Your task to perform on an android device: Open the phone app and click the voicemail tab. Image 0: 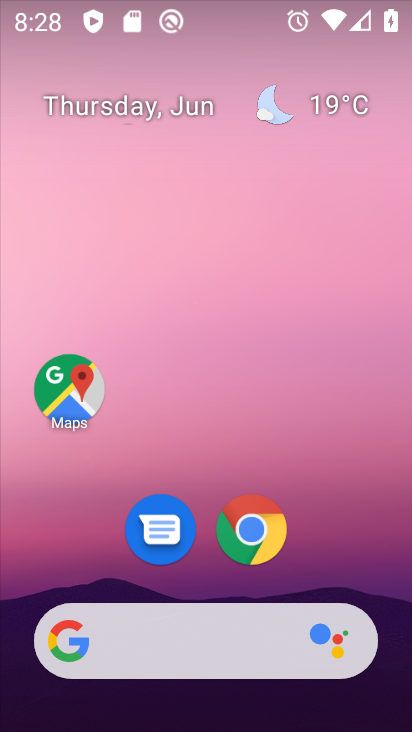
Step 0: drag from (397, 706) to (386, 117)
Your task to perform on an android device: Open the phone app and click the voicemail tab. Image 1: 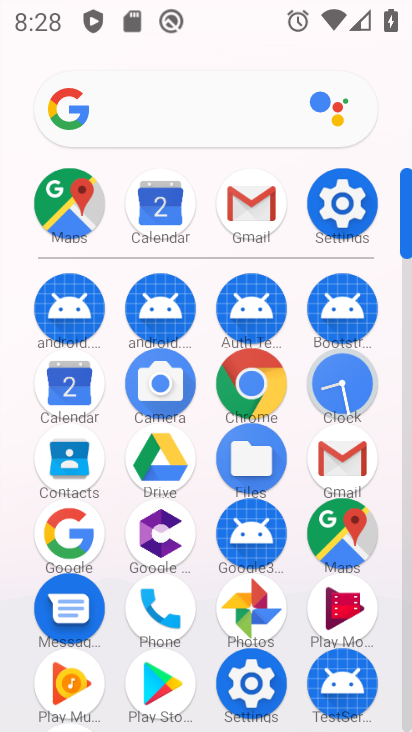
Step 1: click (170, 616)
Your task to perform on an android device: Open the phone app and click the voicemail tab. Image 2: 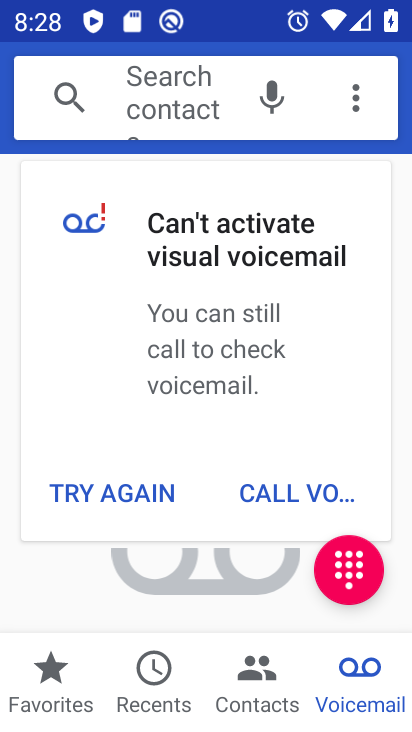
Step 2: click (369, 692)
Your task to perform on an android device: Open the phone app and click the voicemail tab. Image 3: 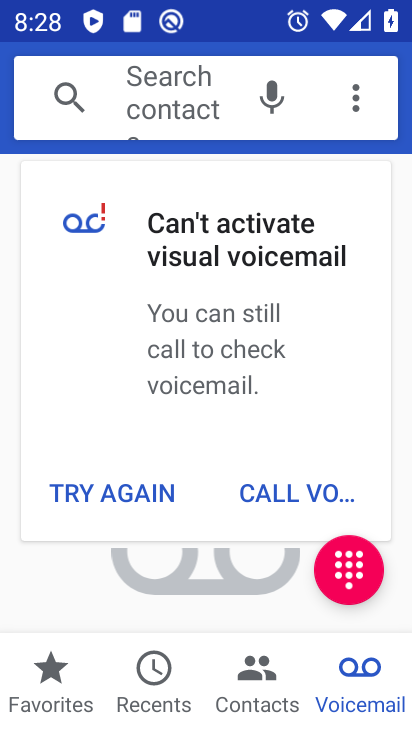
Step 3: click (366, 680)
Your task to perform on an android device: Open the phone app and click the voicemail tab. Image 4: 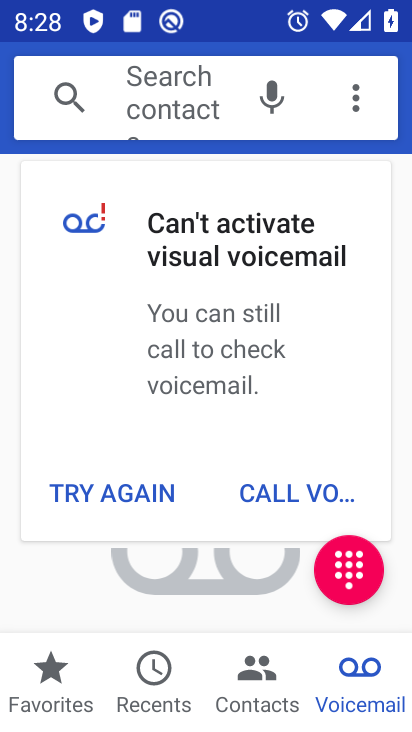
Step 4: task complete